Your task to perform on an android device: What's the weather today? Image 0: 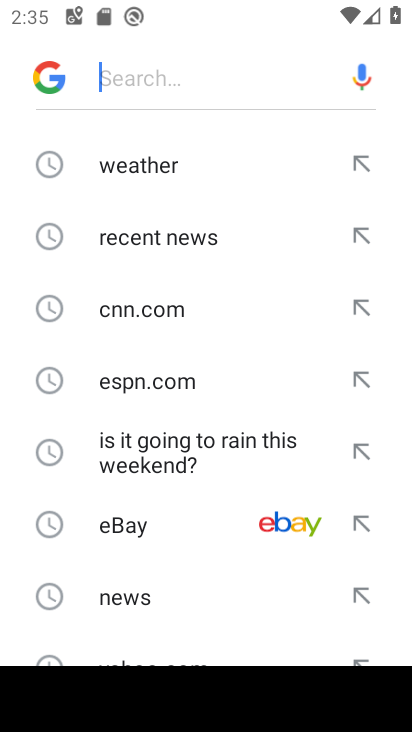
Step 0: press back button
Your task to perform on an android device: What's the weather today? Image 1: 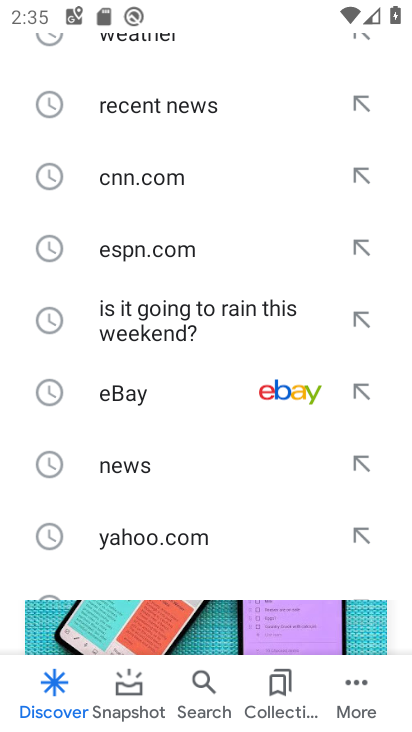
Step 1: drag from (147, 133) to (153, 497)
Your task to perform on an android device: What's the weather today? Image 2: 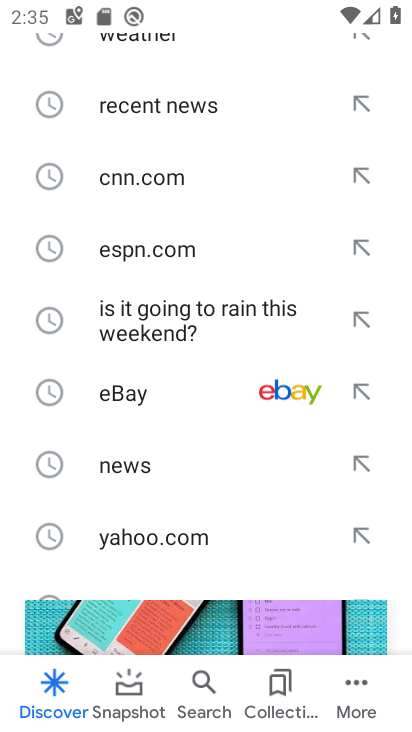
Step 2: drag from (166, 102) to (193, 443)
Your task to perform on an android device: What's the weather today? Image 3: 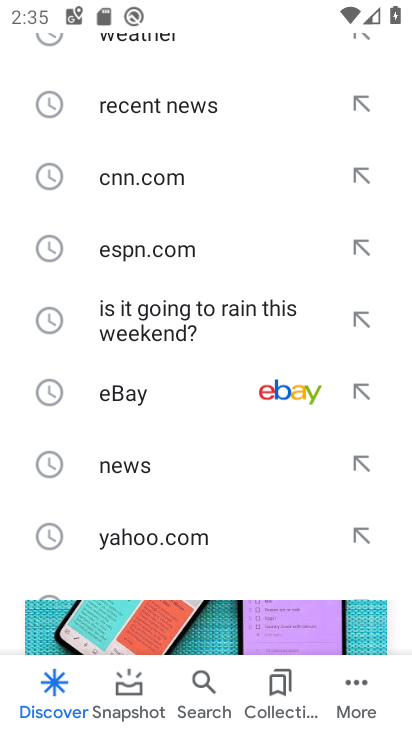
Step 3: click (170, 32)
Your task to perform on an android device: What's the weather today? Image 4: 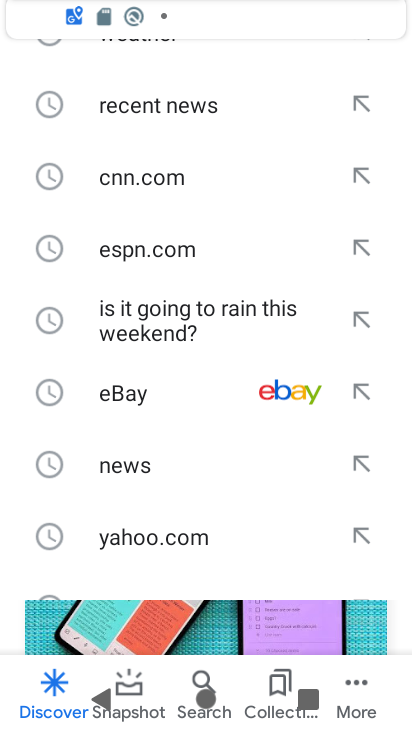
Step 4: click (98, 33)
Your task to perform on an android device: What's the weather today? Image 5: 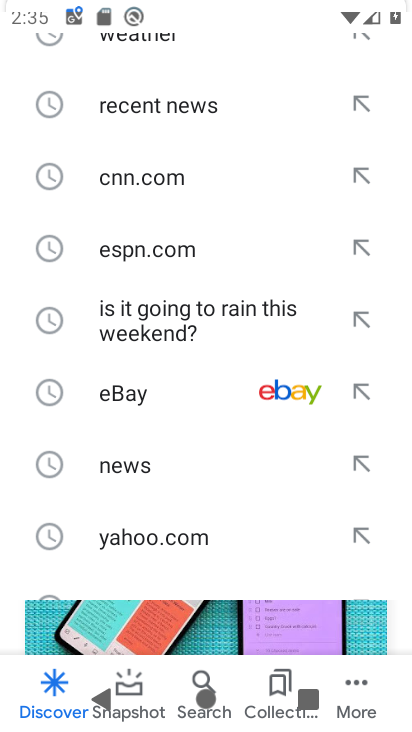
Step 5: click (132, 36)
Your task to perform on an android device: What's the weather today? Image 6: 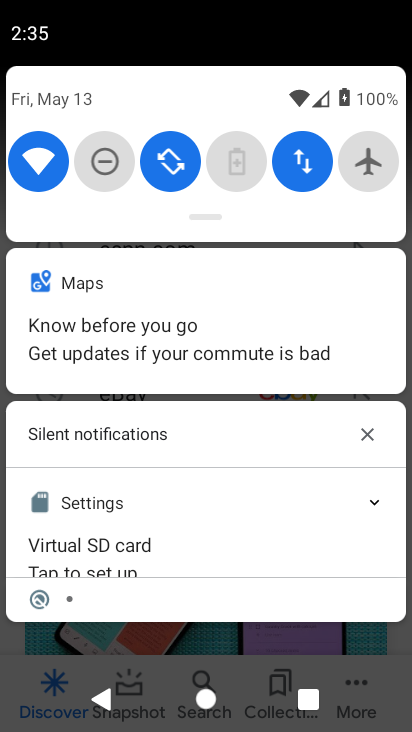
Step 6: click (132, 36)
Your task to perform on an android device: What's the weather today? Image 7: 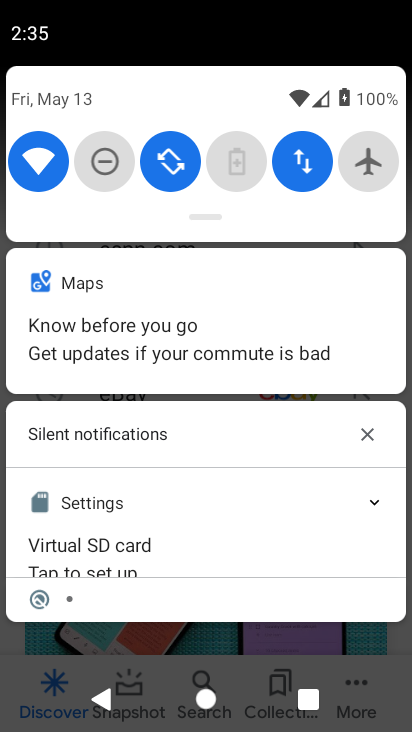
Step 7: click (132, 36)
Your task to perform on an android device: What's the weather today? Image 8: 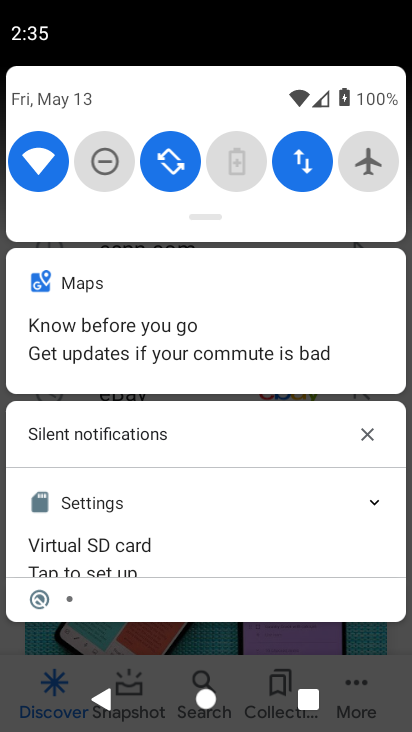
Step 8: click (134, 36)
Your task to perform on an android device: What's the weather today? Image 9: 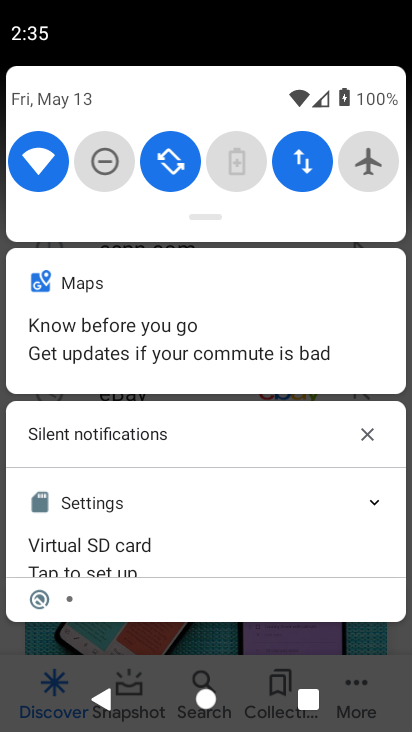
Step 9: drag from (276, 225) to (273, 156)
Your task to perform on an android device: What's the weather today? Image 10: 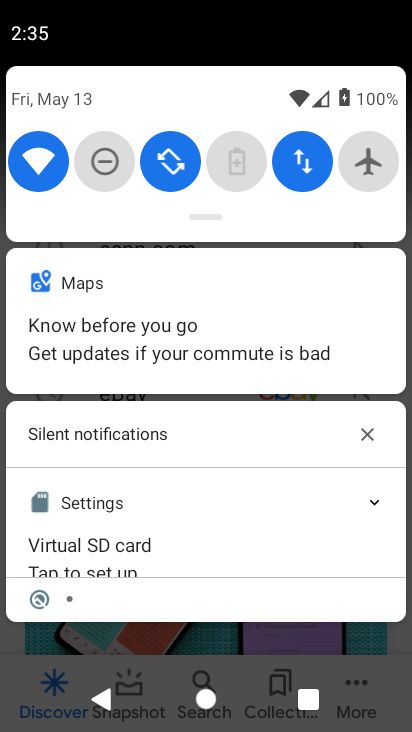
Step 10: click (189, 107)
Your task to perform on an android device: What's the weather today? Image 11: 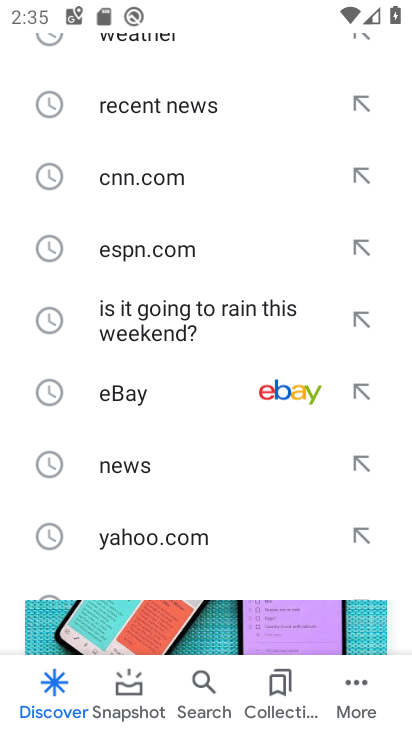
Step 11: drag from (246, 260) to (308, 438)
Your task to perform on an android device: What's the weather today? Image 12: 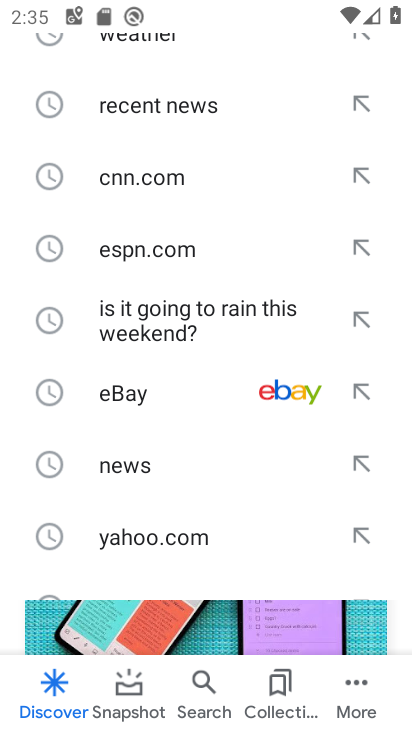
Step 12: click (185, 40)
Your task to perform on an android device: What's the weather today? Image 13: 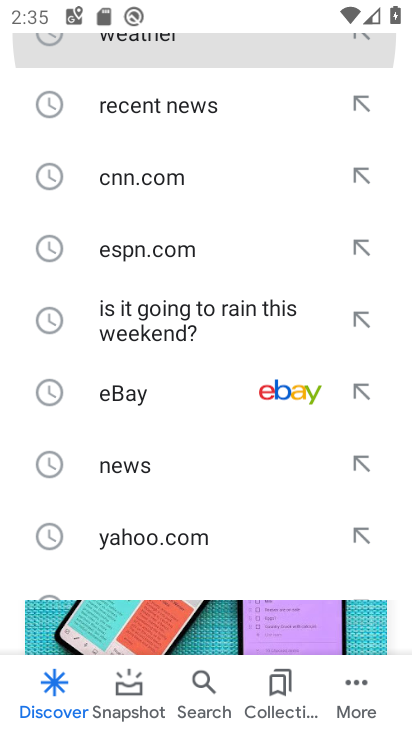
Step 13: click (176, 37)
Your task to perform on an android device: What's the weather today? Image 14: 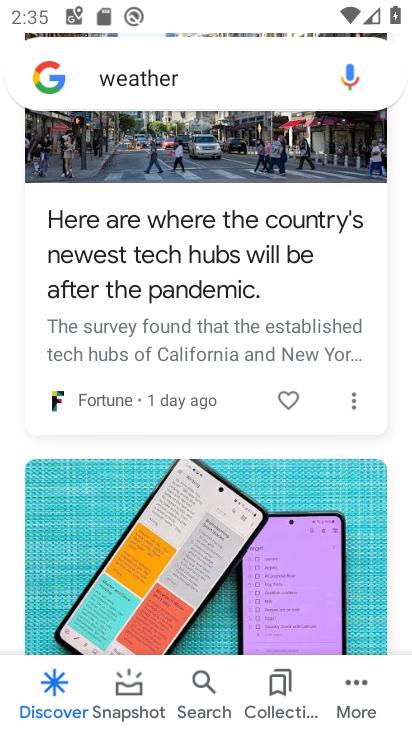
Step 14: click (173, 36)
Your task to perform on an android device: What's the weather today? Image 15: 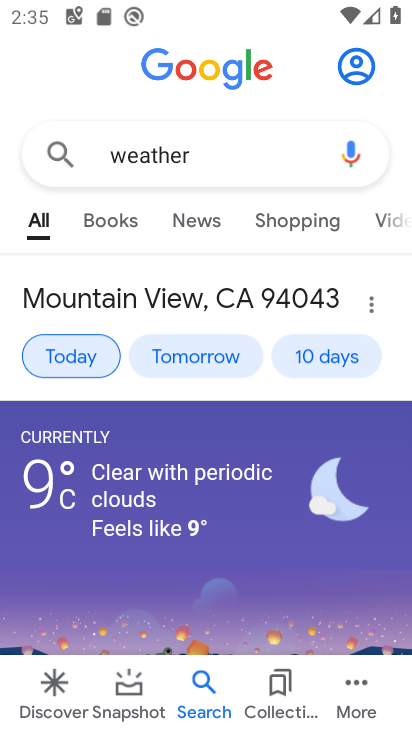
Step 15: click (190, 352)
Your task to perform on an android device: What's the weather today? Image 16: 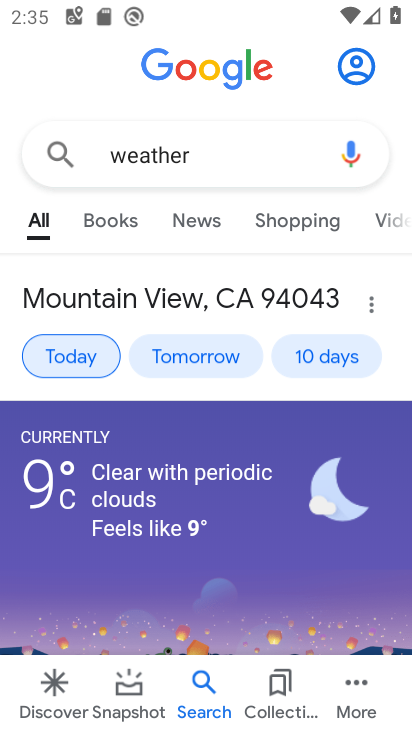
Step 16: click (192, 358)
Your task to perform on an android device: What's the weather today? Image 17: 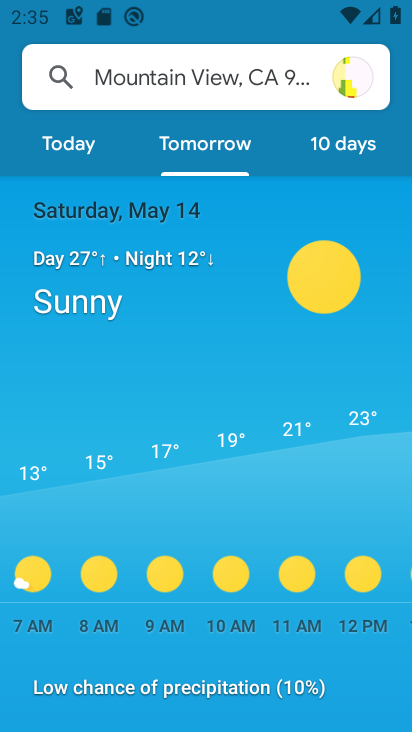
Step 17: task complete